Your task to perform on an android device: check the backup settings in the google photos Image 0: 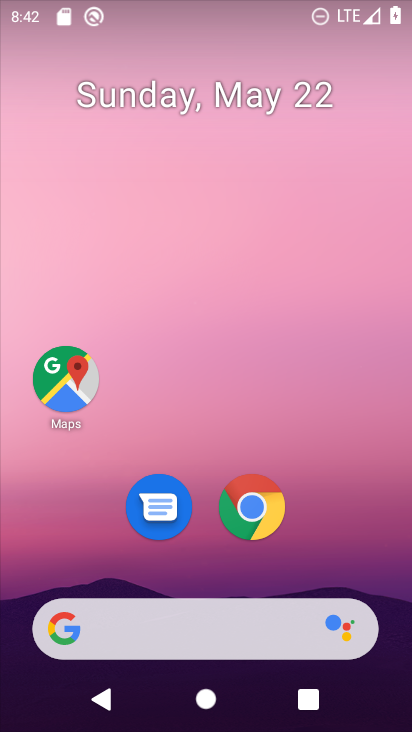
Step 0: drag from (159, 706) to (34, 63)
Your task to perform on an android device: check the backup settings in the google photos Image 1: 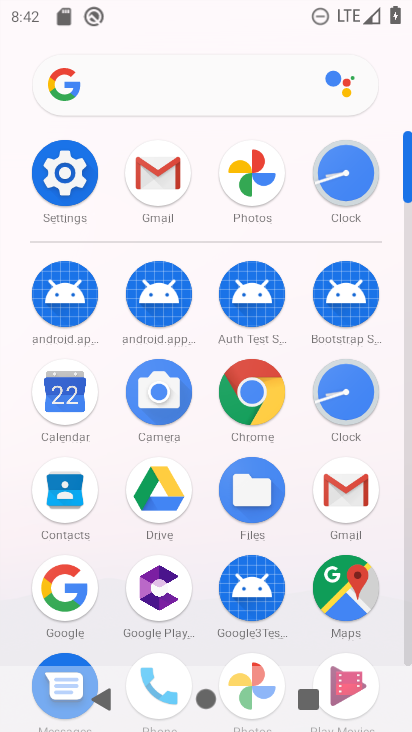
Step 1: click (241, 184)
Your task to perform on an android device: check the backup settings in the google photos Image 2: 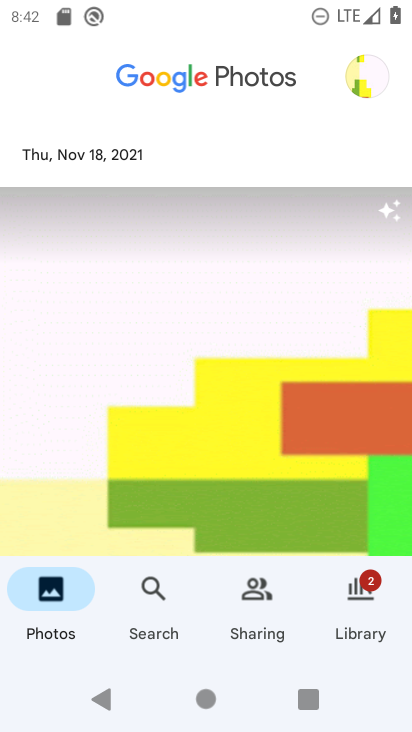
Step 2: click (361, 74)
Your task to perform on an android device: check the backup settings in the google photos Image 3: 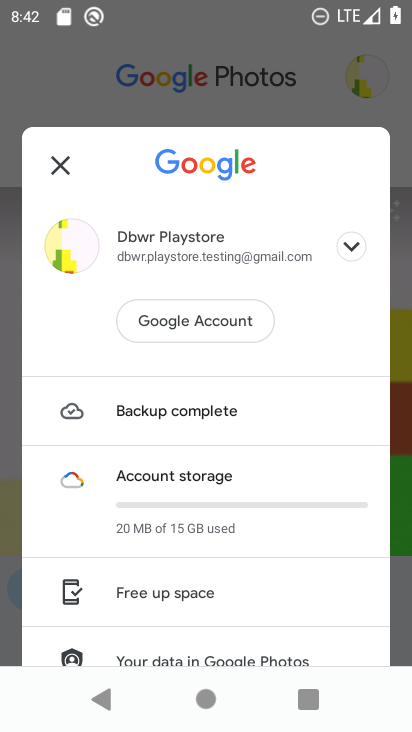
Step 3: drag from (203, 564) to (263, 54)
Your task to perform on an android device: check the backup settings in the google photos Image 4: 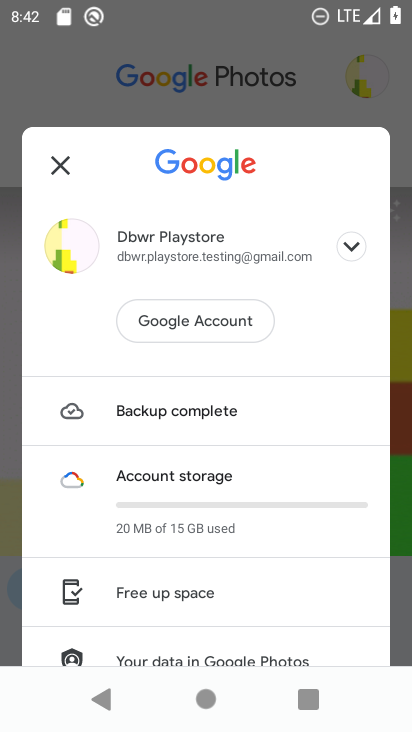
Step 4: drag from (264, 580) to (262, 3)
Your task to perform on an android device: check the backup settings in the google photos Image 5: 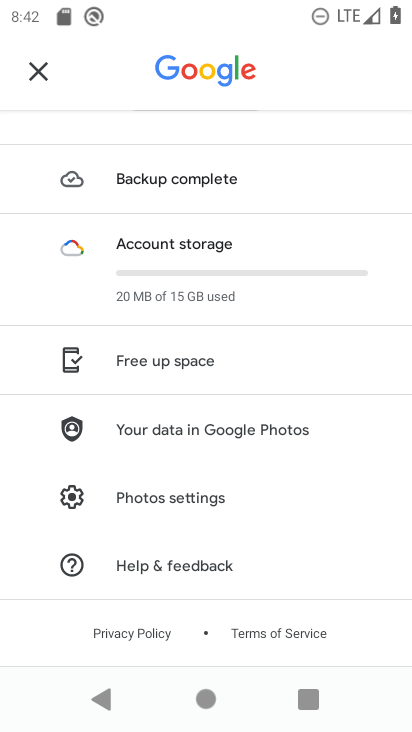
Step 5: click (188, 491)
Your task to perform on an android device: check the backup settings in the google photos Image 6: 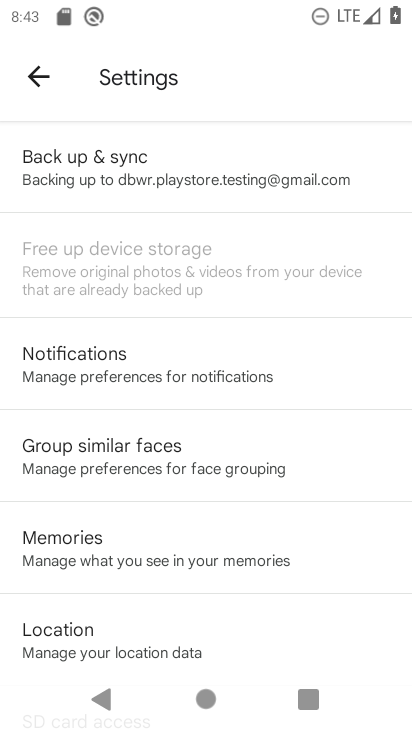
Step 6: click (282, 151)
Your task to perform on an android device: check the backup settings in the google photos Image 7: 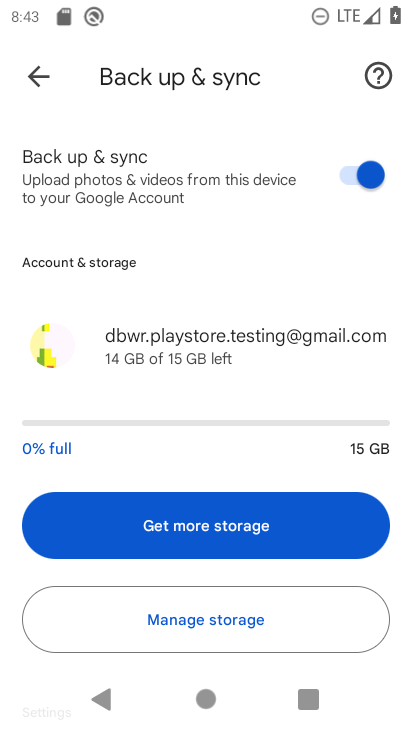
Step 7: task complete